Your task to perform on an android device: turn on wifi Image 0: 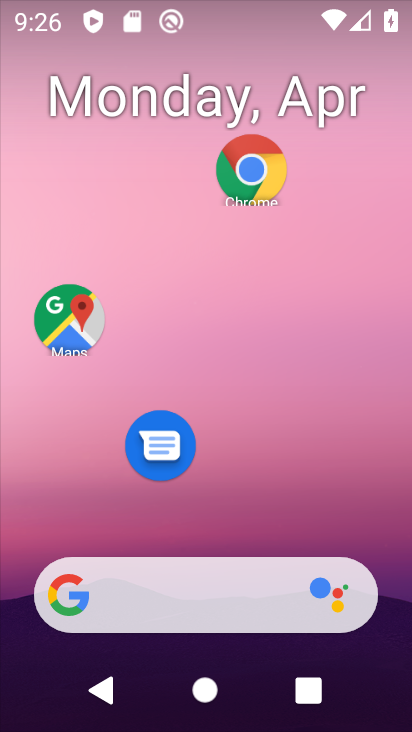
Step 0: drag from (216, 531) to (212, 101)
Your task to perform on an android device: turn on wifi Image 1: 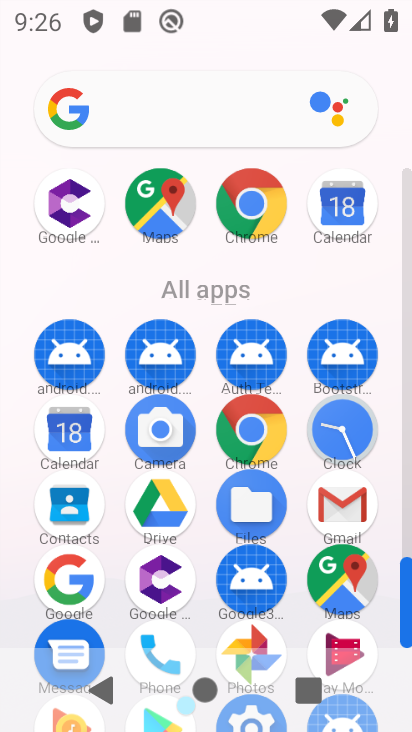
Step 1: drag from (198, 546) to (214, 124)
Your task to perform on an android device: turn on wifi Image 2: 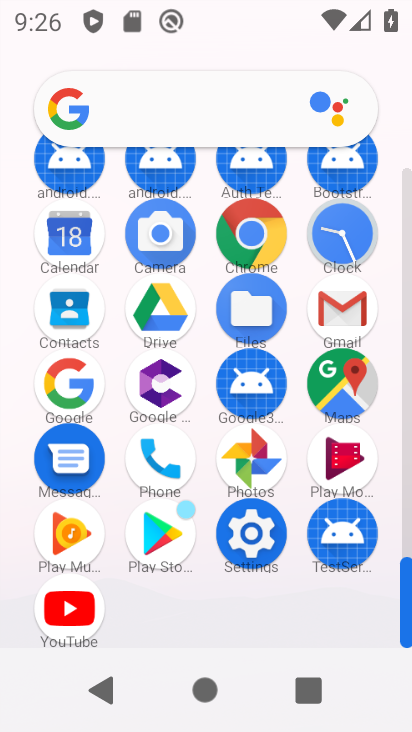
Step 2: click (249, 515)
Your task to perform on an android device: turn on wifi Image 3: 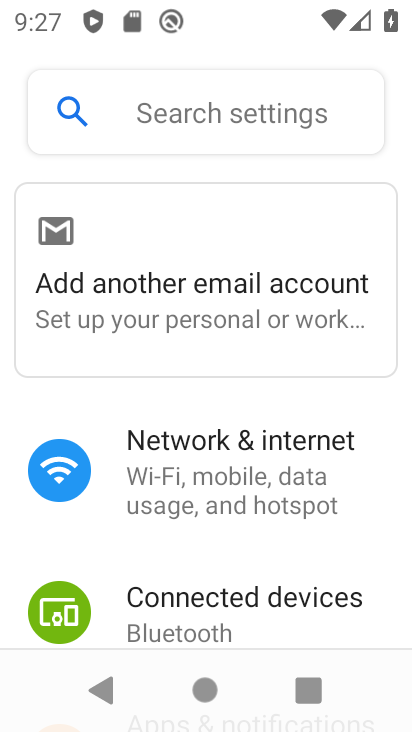
Step 3: click (216, 440)
Your task to perform on an android device: turn on wifi Image 4: 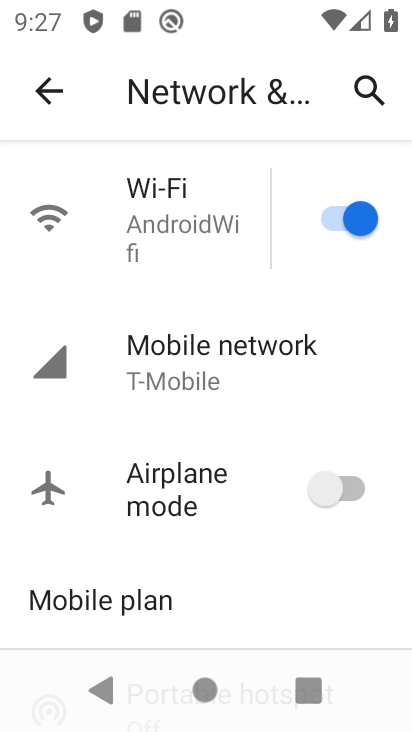
Step 4: task complete